Your task to perform on an android device: toggle data saver in the chrome app Image 0: 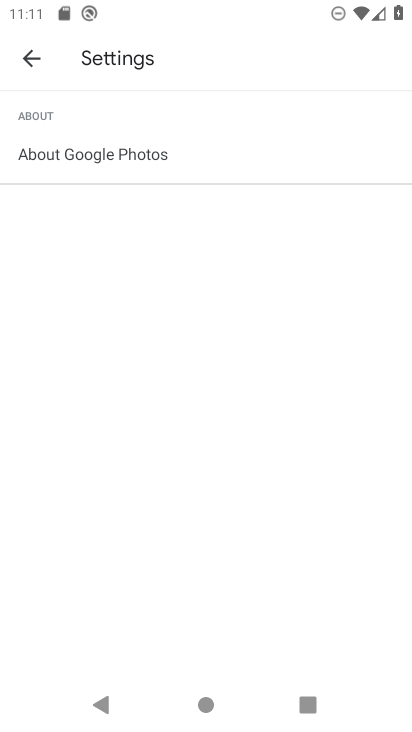
Step 0: press home button
Your task to perform on an android device: toggle data saver in the chrome app Image 1: 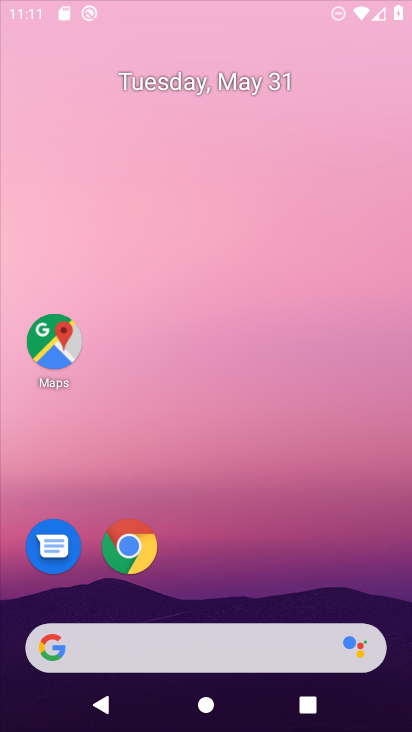
Step 1: drag from (294, 672) to (330, 48)
Your task to perform on an android device: toggle data saver in the chrome app Image 2: 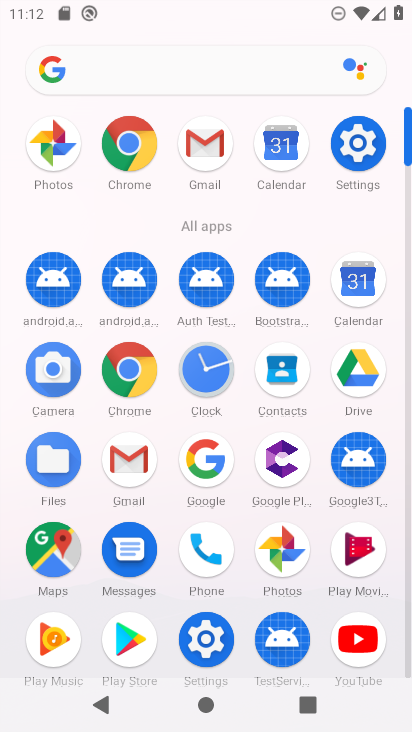
Step 2: click (129, 390)
Your task to perform on an android device: toggle data saver in the chrome app Image 3: 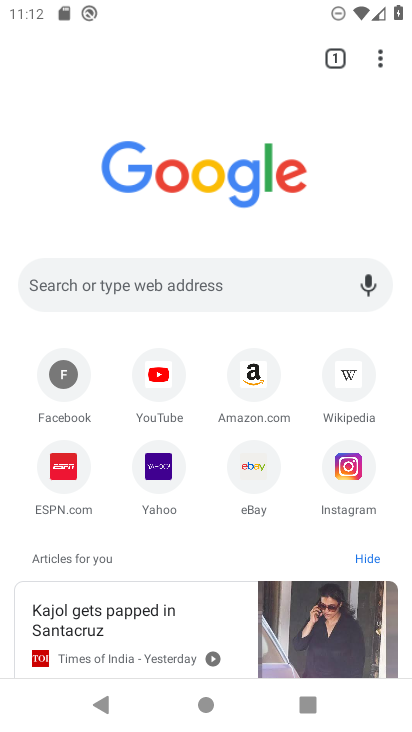
Step 3: drag from (375, 65) to (338, 294)
Your task to perform on an android device: toggle data saver in the chrome app Image 4: 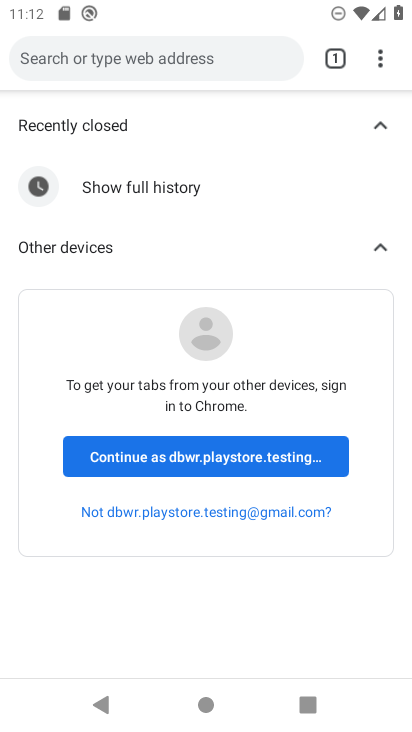
Step 4: drag from (232, 404) to (189, 466)
Your task to perform on an android device: toggle data saver in the chrome app Image 5: 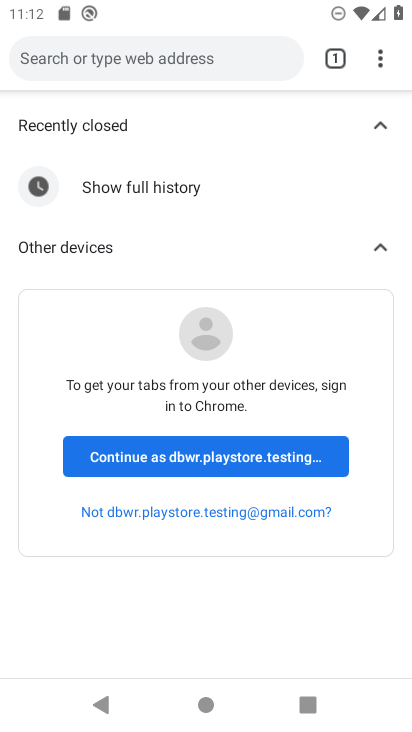
Step 5: click (180, 485)
Your task to perform on an android device: toggle data saver in the chrome app Image 6: 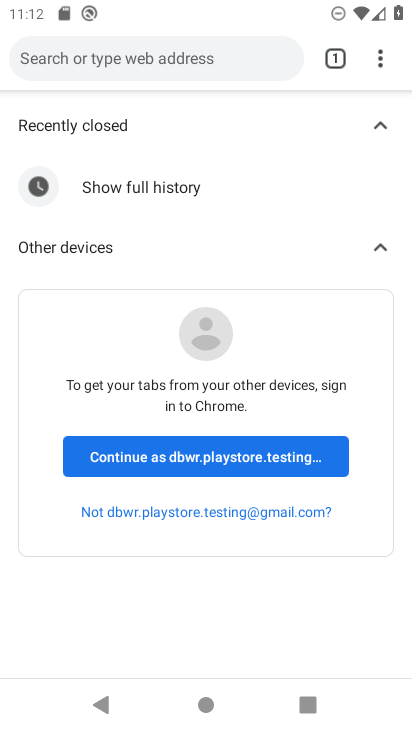
Step 6: press back button
Your task to perform on an android device: toggle data saver in the chrome app Image 7: 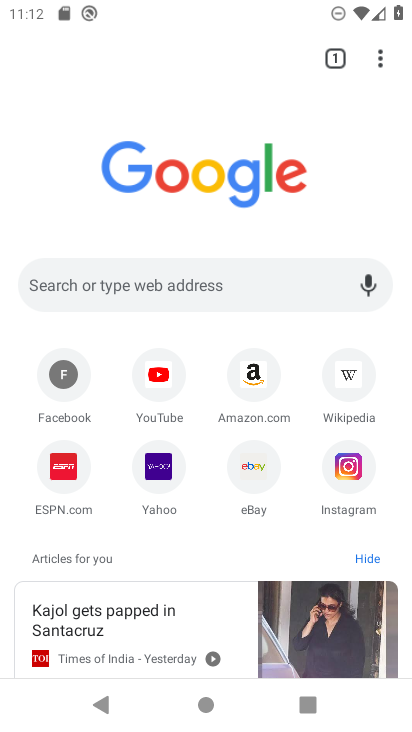
Step 7: drag from (382, 57) to (173, 496)
Your task to perform on an android device: toggle data saver in the chrome app Image 8: 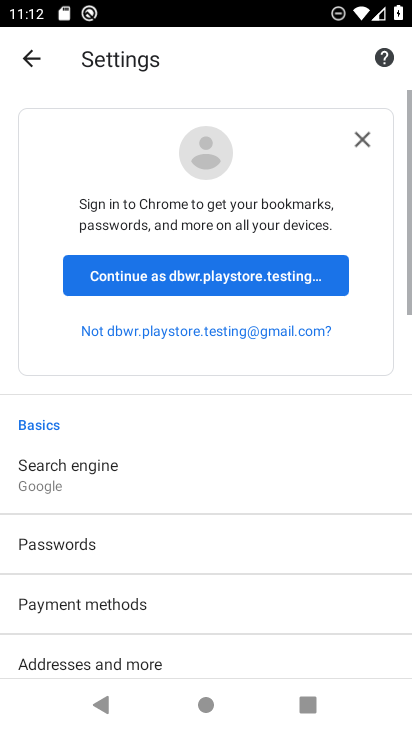
Step 8: drag from (269, 516) to (362, 4)
Your task to perform on an android device: toggle data saver in the chrome app Image 9: 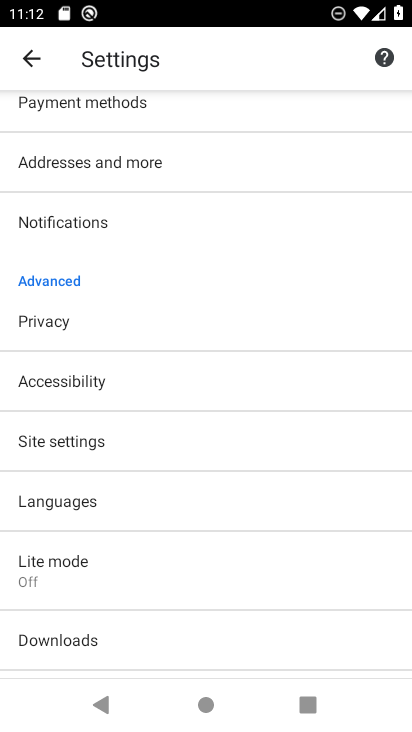
Step 9: drag from (187, 650) to (217, 549)
Your task to perform on an android device: toggle data saver in the chrome app Image 10: 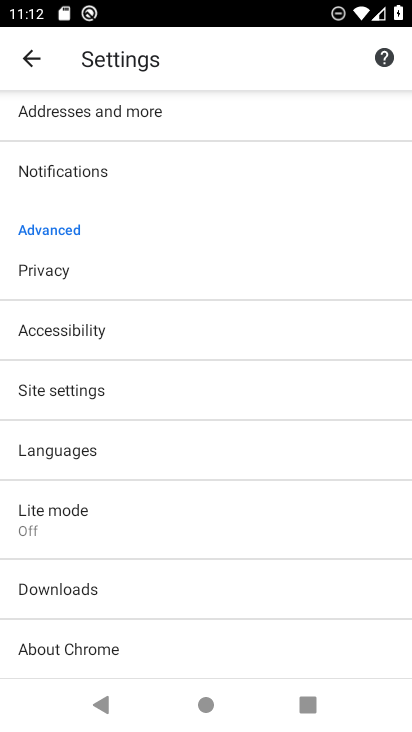
Step 10: click (135, 504)
Your task to perform on an android device: toggle data saver in the chrome app Image 11: 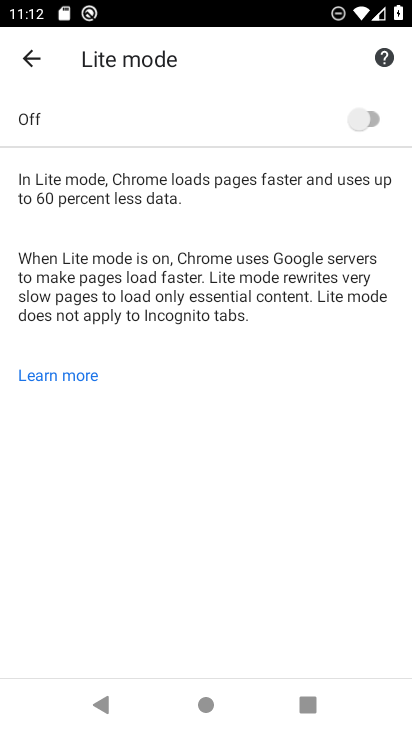
Step 11: click (366, 118)
Your task to perform on an android device: toggle data saver in the chrome app Image 12: 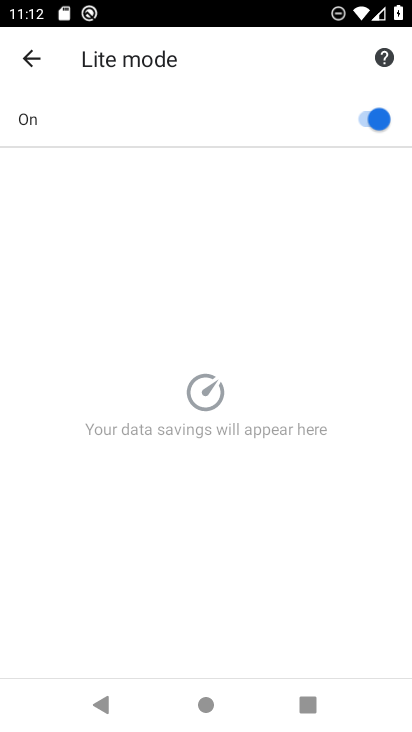
Step 12: task complete